Your task to perform on an android device: turn notification dots on Image 0: 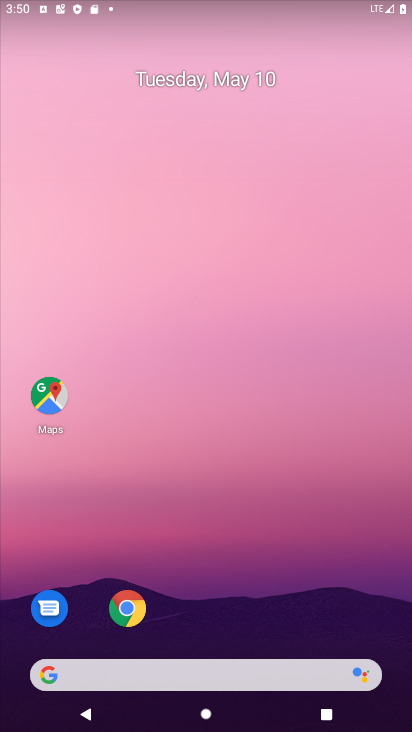
Step 0: drag from (383, 645) to (233, 92)
Your task to perform on an android device: turn notification dots on Image 1: 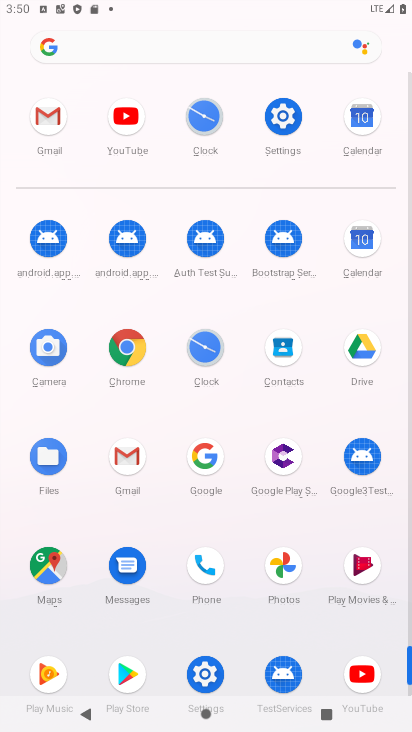
Step 1: click (204, 675)
Your task to perform on an android device: turn notification dots on Image 2: 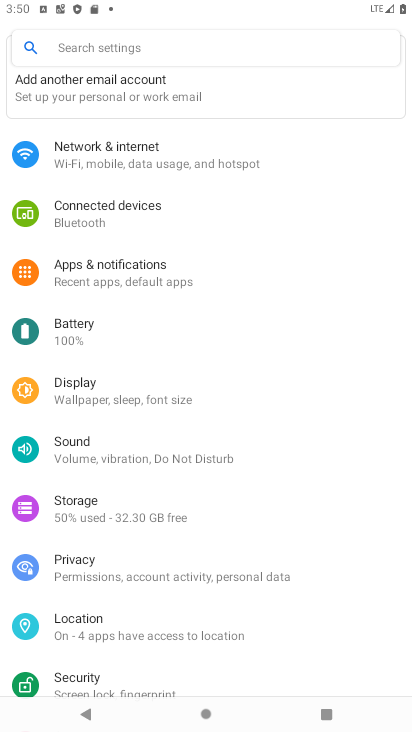
Step 2: click (103, 260)
Your task to perform on an android device: turn notification dots on Image 3: 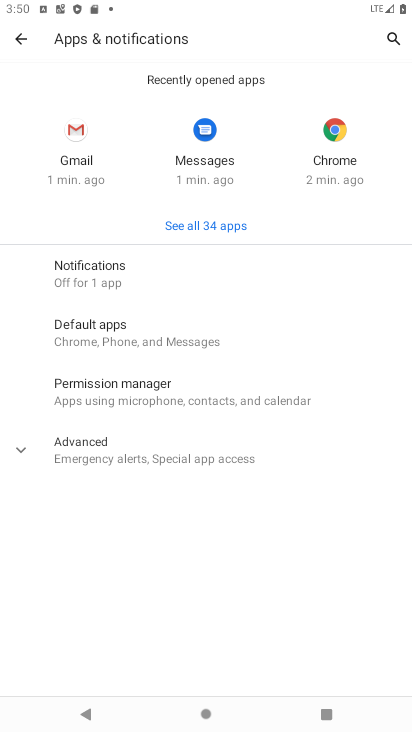
Step 3: click (43, 449)
Your task to perform on an android device: turn notification dots on Image 4: 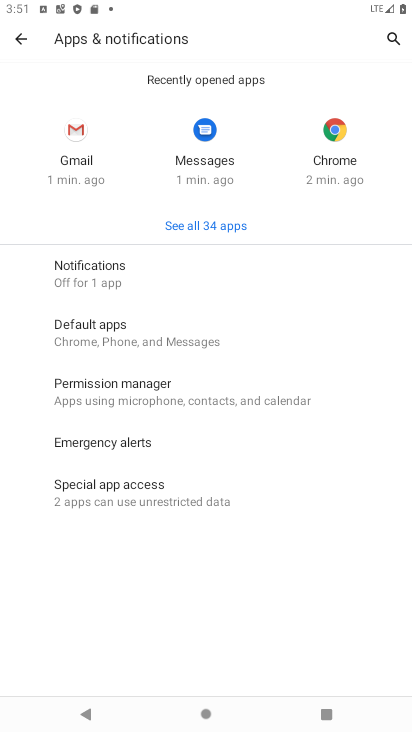
Step 4: click (93, 261)
Your task to perform on an android device: turn notification dots on Image 5: 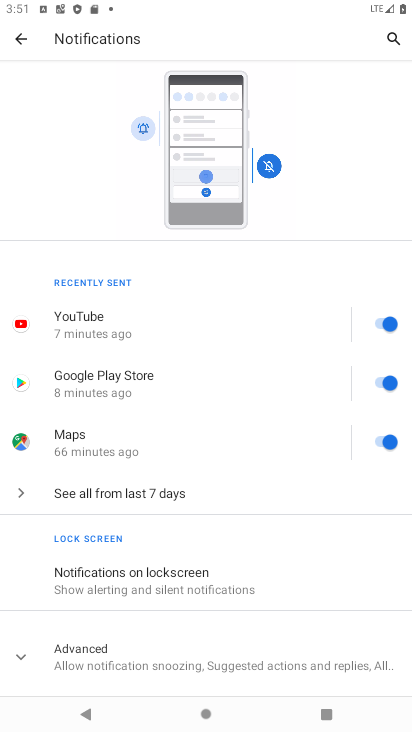
Step 5: drag from (246, 602) to (215, 336)
Your task to perform on an android device: turn notification dots on Image 6: 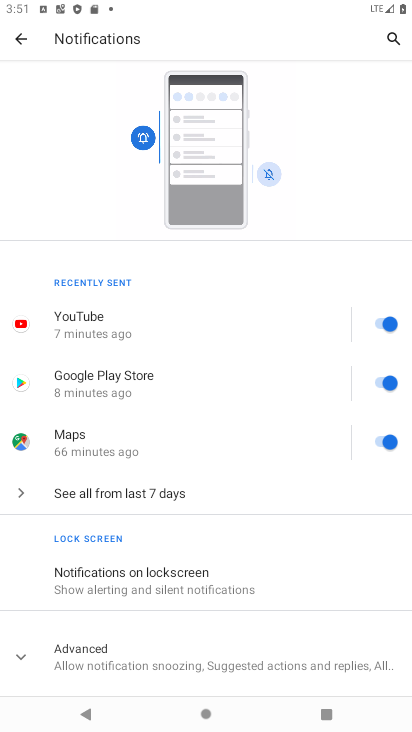
Step 6: click (35, 654)
Your task to perform on an android device: turn notification dots on Image 7: 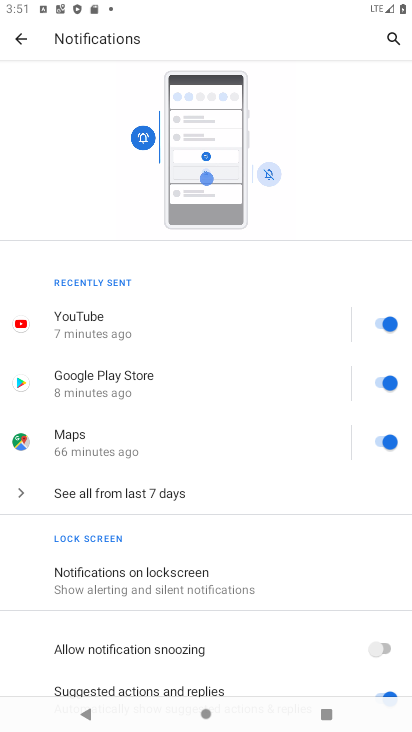
Step 7: drag from (279, 656) to (279, 253)
Your task to perform on an android device: turn notification dots on Image 8: 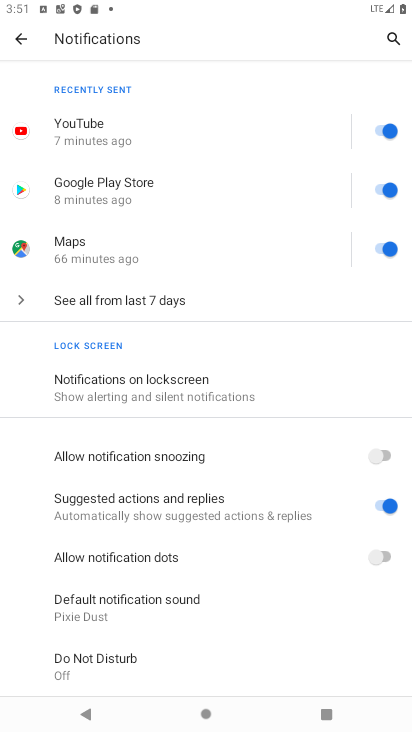
Step 8: click (383, 559)
Your task to perform on an android device: turn notification dots on Image 9: 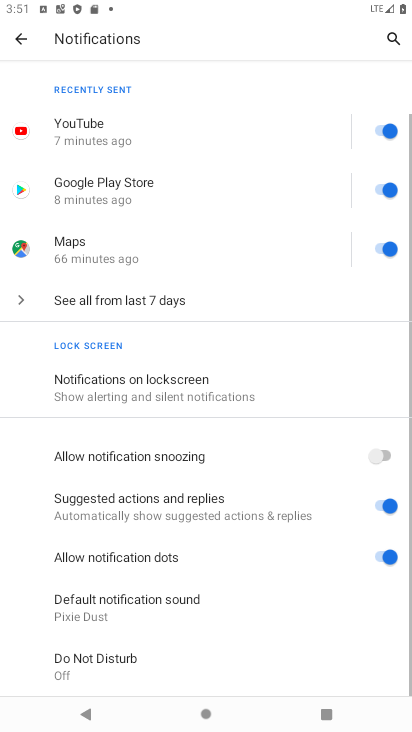
Step 9: task complete